Your task to perform on an android device: Go to sound settings Image 0: 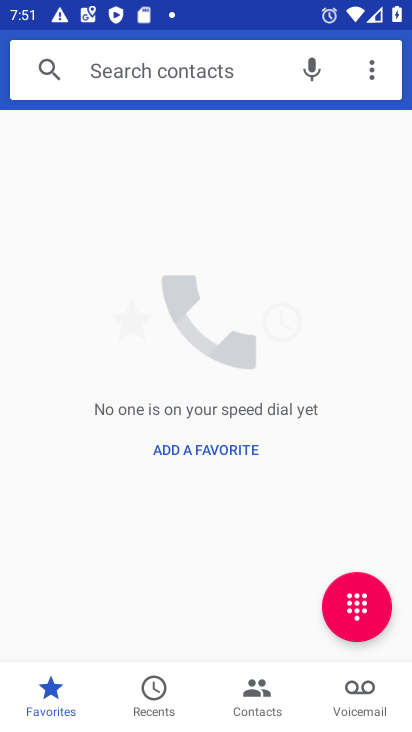
Step 0: press home button
Your task to perform on an android device: Go to sound settings Image 1: 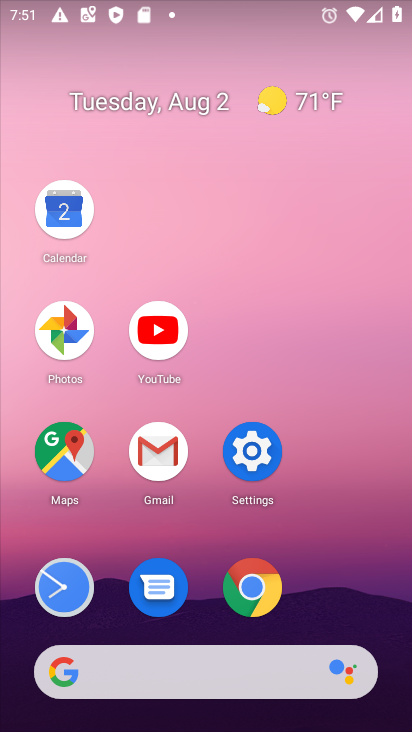
Step 1: click (251, 451)
Your task to perform on an android device: Go to sound settings Image 2: 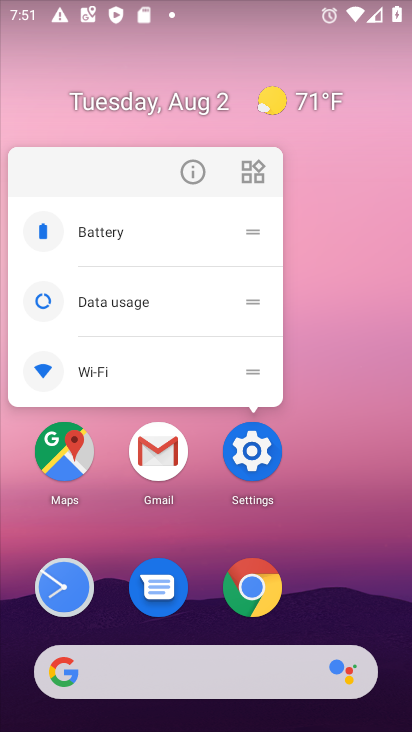
Step 2: click (251, 451)
Your task to perform on an android device: Go to sound settings Image 3: 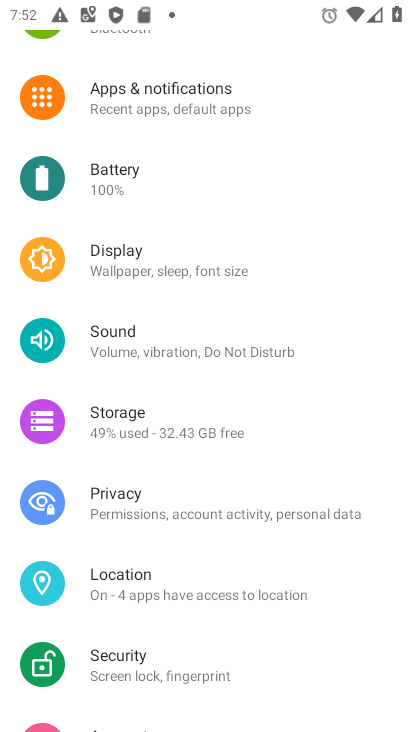
Step 3: click (117, 336)
Your task to perform on an android device: Go to sound settings Image 4: 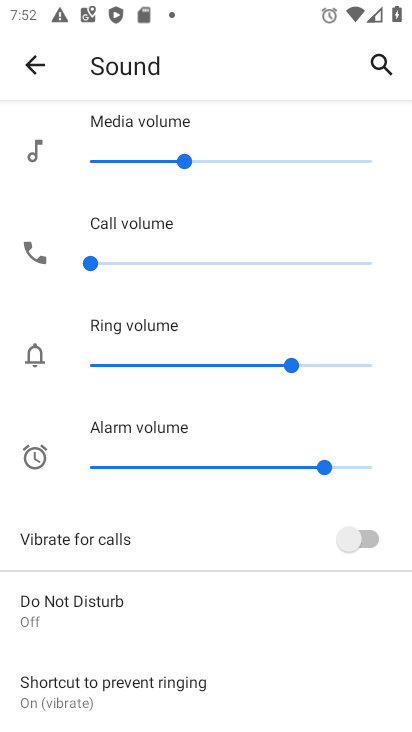
Step 4: task complete